Your task to perform on an android device: turn off smart reply in the gmail app Image 0: 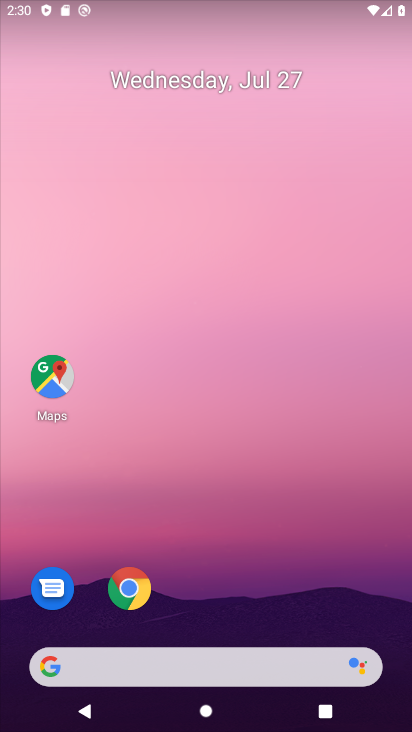
Step 0: drag from (373, 602) to (278, 415)
Your task to perform on an android device: turn off smart reply in the gmail app Image 1: 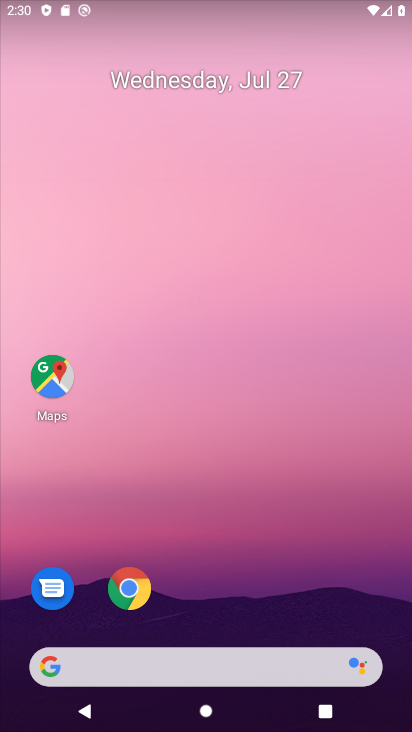
Step 1: drag from (228, 703) to (125, 272)
Your task to perform on an android device: turn off smart reply in the gmail app Image 2: 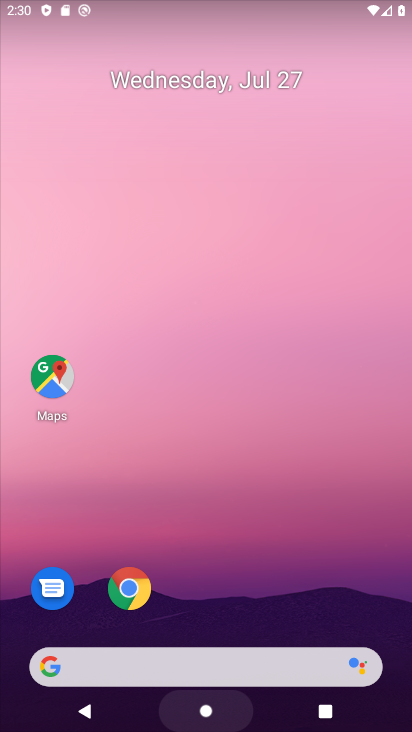
Step 2: drag from (130, 523) to (115, 398)
Your task to perform on an android device: turn off smart reply in the gmail app Image 3: 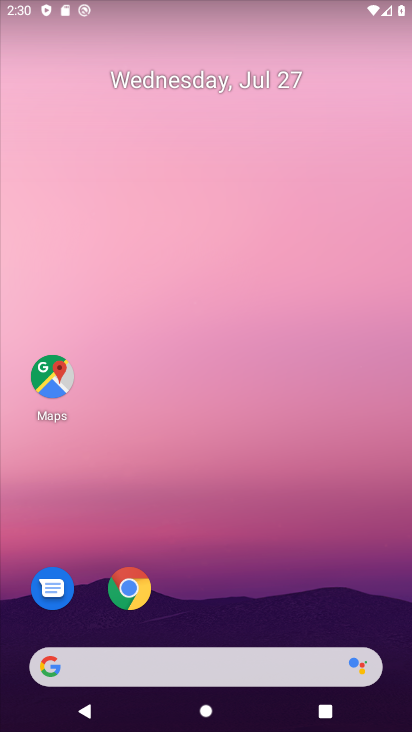
Step 3: drag from (168, 512) to (114, 199)
Your task to perform on an android device: turn off smart reply in the gmail app Image 4: 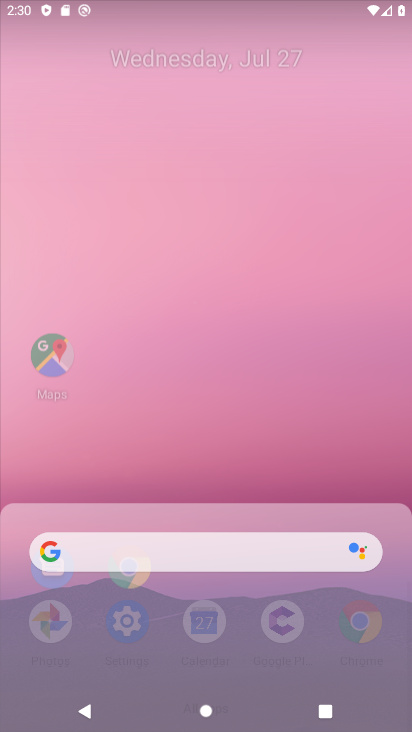
Step 4: drag from (188, 588) to (114, 131)
Your task to perform on an android device: turn off smart reply in the gmail app Image 5: 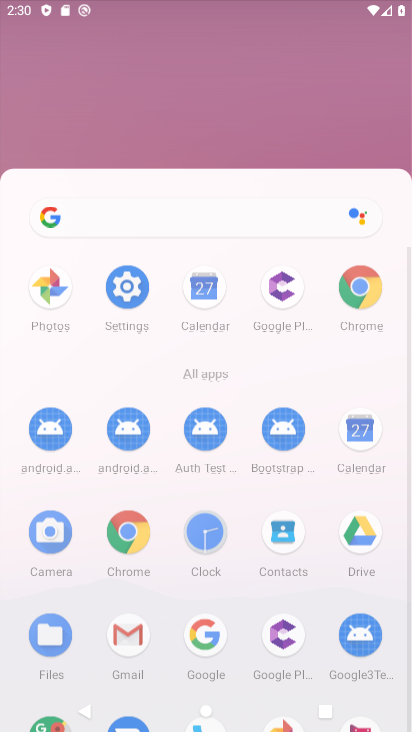
Step 5: drag from (181, 481) to (132, 206)
Your task to perform on an android device: turn off smart reply in the gmail app Image 6: 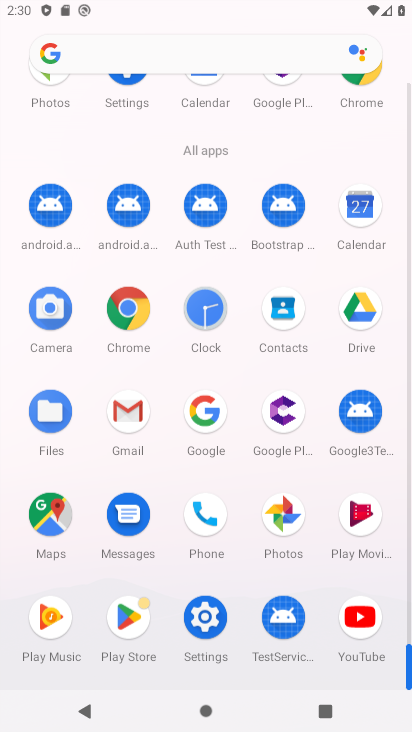
Step 6: drag from (187, 451) to (180, 373)
Your task to perform on an android device: turn off smart reply in the gmail app Image 7: 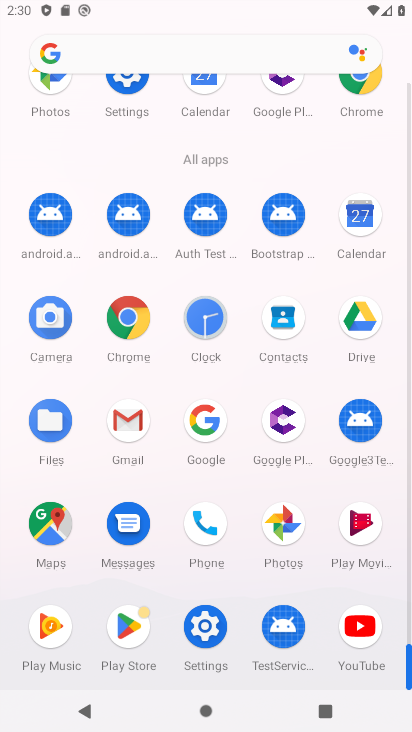
Step 7: click (128, 431)
Your task to perform on an android device: turn off smart reply in the gmail app Image 8: 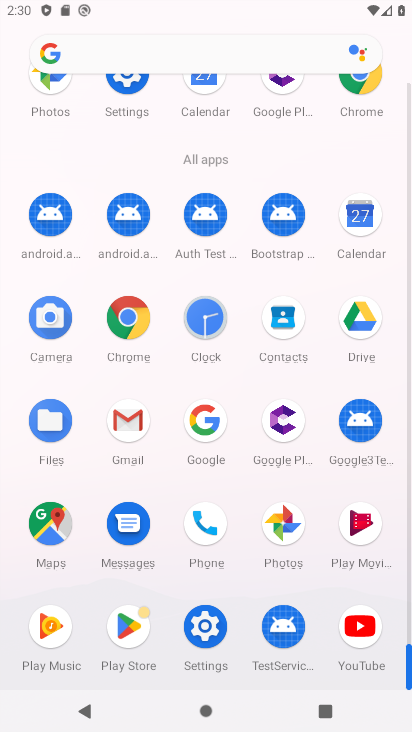
Step 8: click (128, 431)
Your task to perform on an android device: turn off smart reply in the gmail app Image 9: 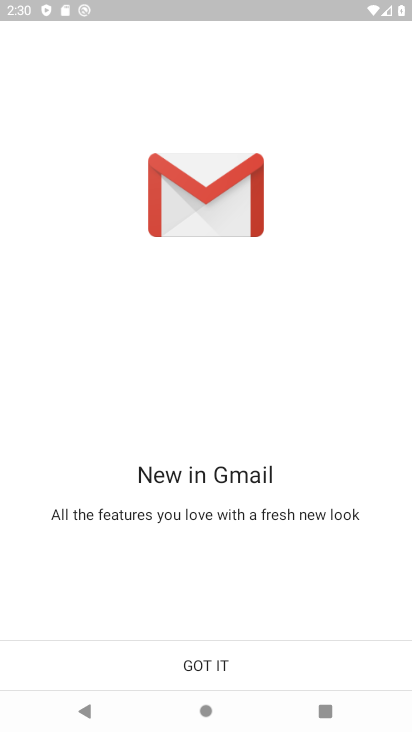
Step 9: click (205, 648)
Your task to perform on an android device: turn off smart reply in the gmail app Image 10: 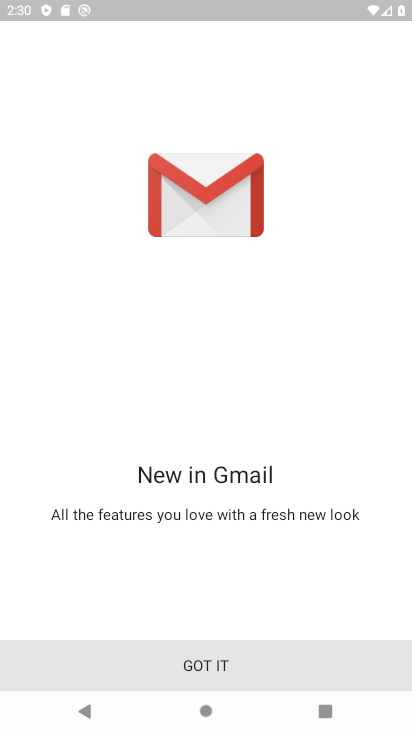
Step 10: click (205, 648)
Your task to perform on an android device: turn off smart reply in the gmail app Image 11: 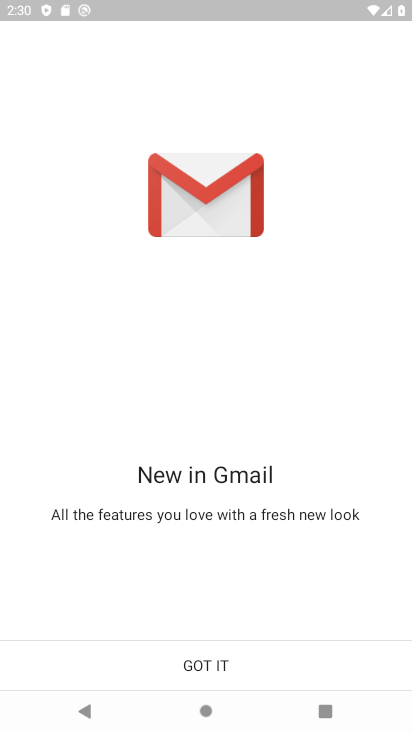
Step 11: click (205, 648)
Your task to perform on an android device: turn off smart reply in the gmail app Image 12: 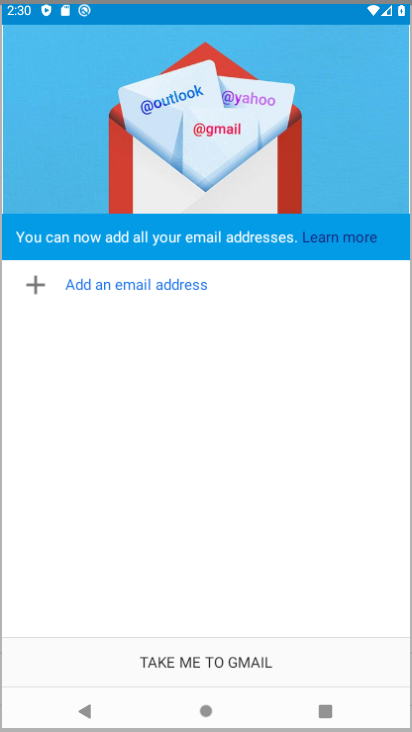
Step 12: click (205, 648)
Your task to perform on an android device: turn off smart reply in the gmail app Image 13: 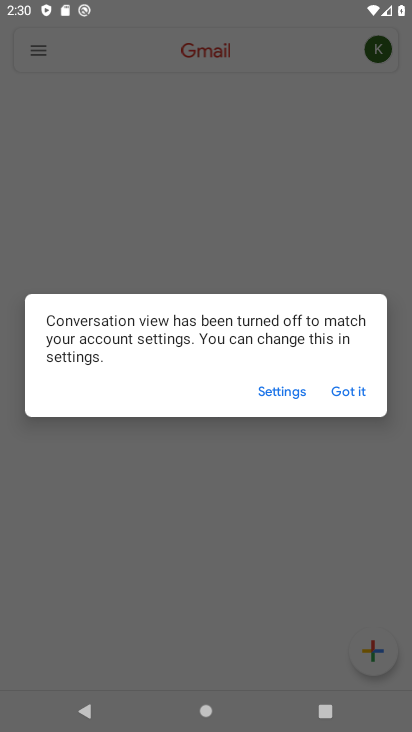
Step 13: click (353, 392)
Your task to perform on an android device: turn off smart reply in the gmail app Image 14: 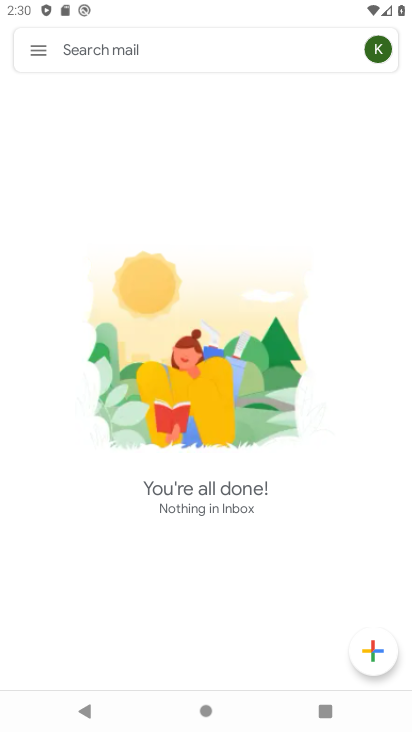
Step 14: click (33, 56)
Your task to perform on an android device: turn off smart reply in the gmail app Image 15: 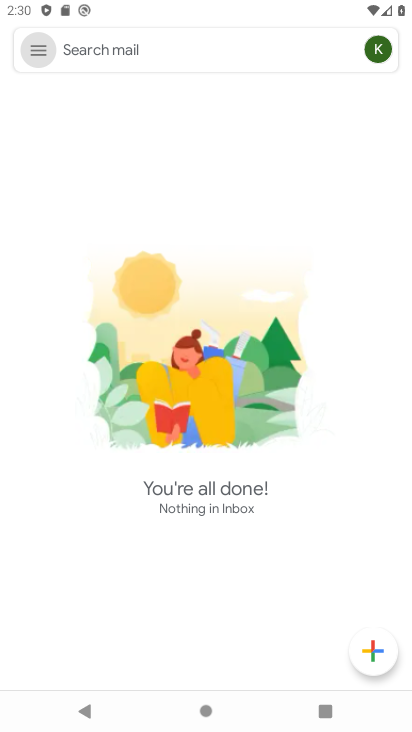
Step 15: click (33, 56)
Your task to perform on an android device: turn off smart reply in the gmail app Image 16: 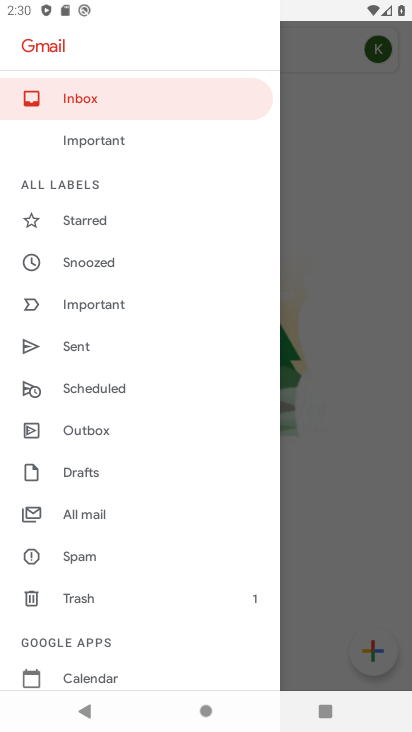
Step 16: drag from (144, 567) to (160, 268)
Your task to perform on an android device: turn off smart reply in the gmail app Image 17: 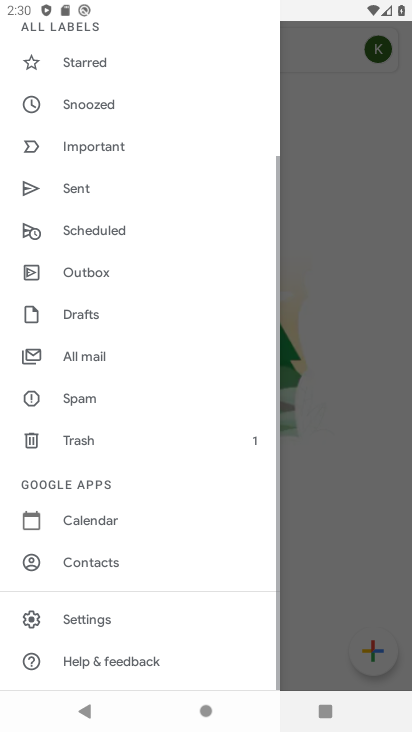
Step 17: drag from (137, 487) to (193, 247)
Your task to perform on an android device: turn off smart reply in the gmail app Image 18: 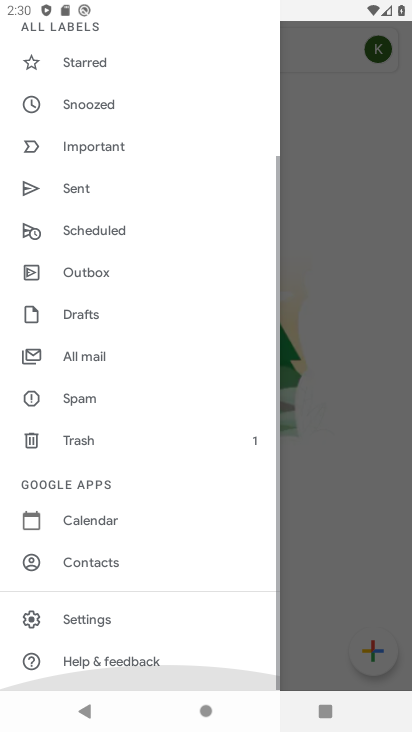
Step 18: click (198, 281)
Your task to perform on an android device: turn off smart reply in the gmail app Image 19: 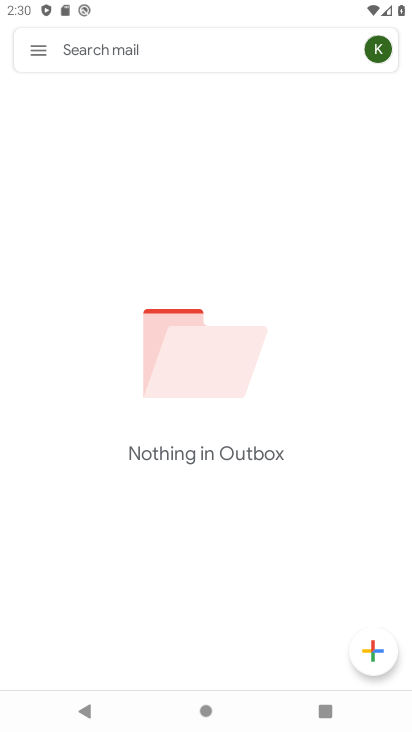
Step 19: task complete